Your task to perform on an android device: Search for duracell triple a on amazon.com, select the first entry, and add it to the cart. Image 0: 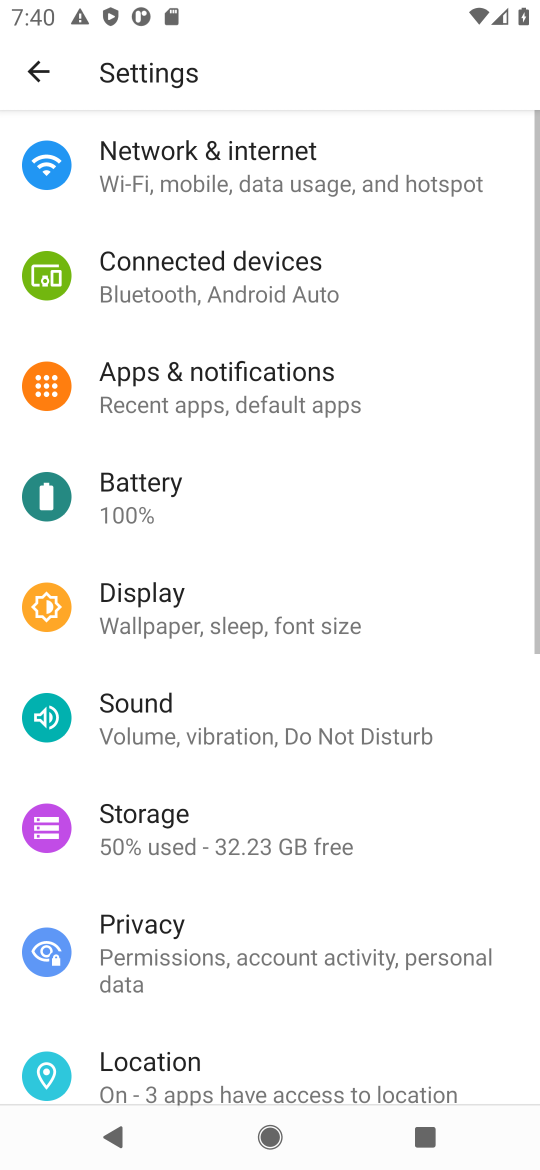
Step 0: press home button
Your task to perform on an android device: Search for duracell triple a on amazon.com, select the first entry, and add it to the cart. Image 1: 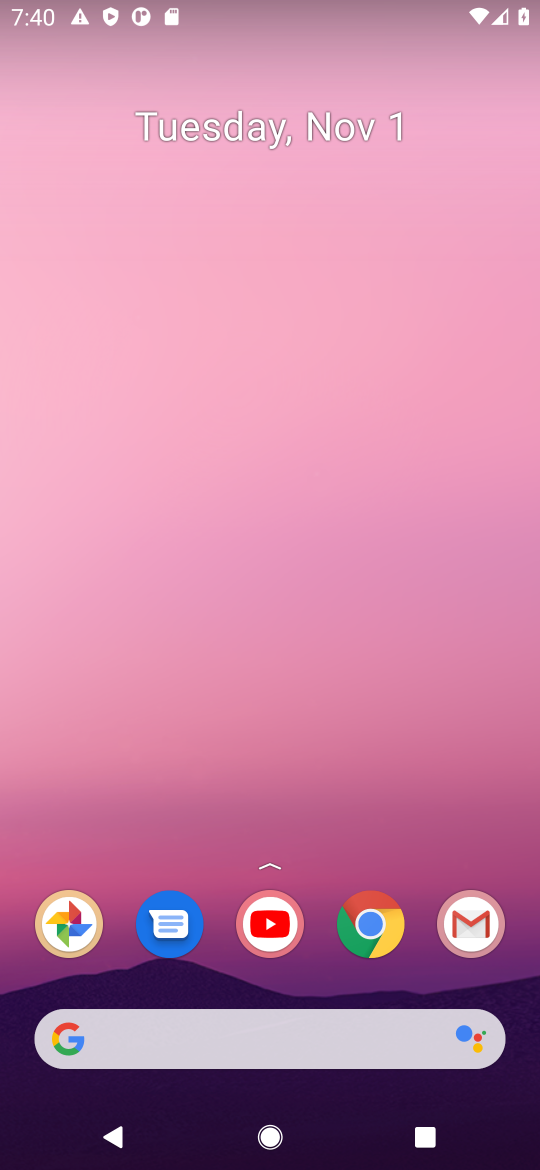
Step 1: click (102, 1040)
Your task to perform on an android device: Search for duracell triple a on amazon.com, select the first entry, and add it to the cart. Image 2: 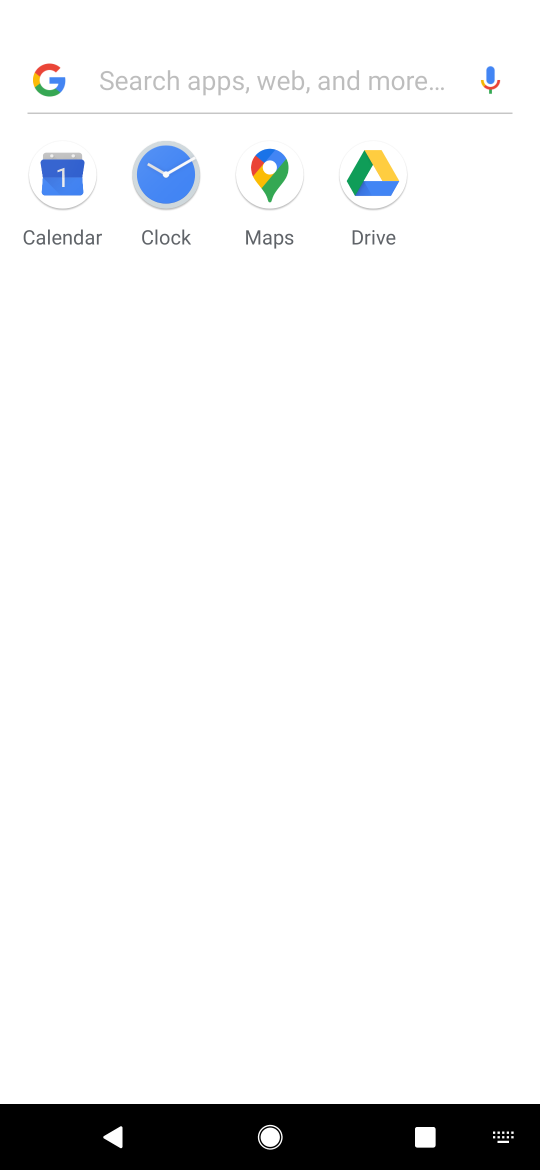
Step 2: press enter
Your task to perform on an android device: Search for duracell triple a on amazon.com, select the first entry, and add it to the cart. Image 3: 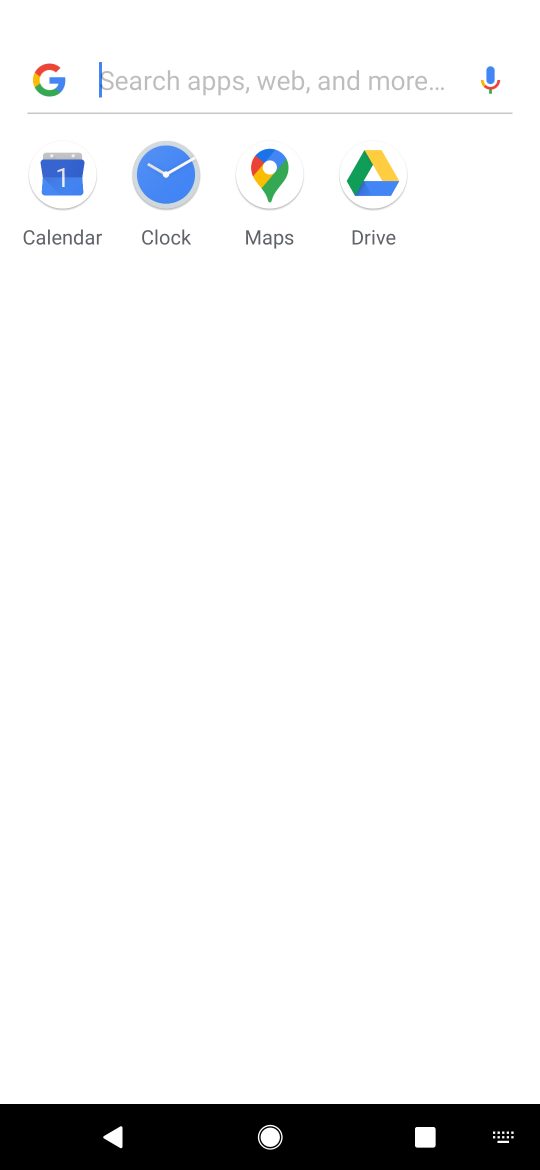
Step 3: type " amazon.com"
Your task to perform on an android device: Search for duracell triple a on amazon.com, select the first entry, and add it to the cart. Image 4: 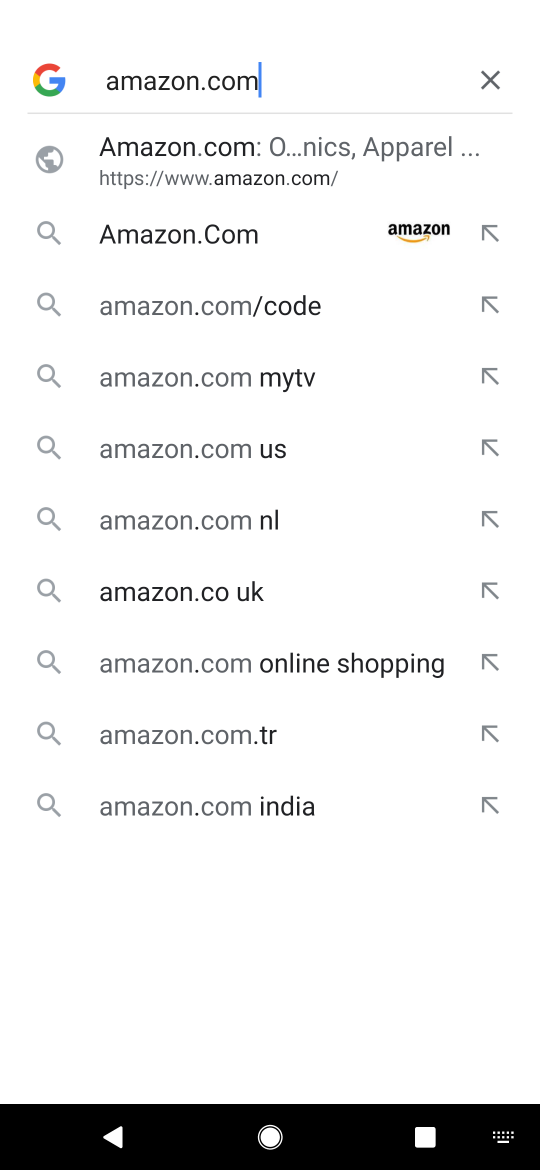
Step 4: press enter
Your task to perform on an android device: Search for duracell triple a on amazon.com, select the first entry, and add it to the cart. Image 5: 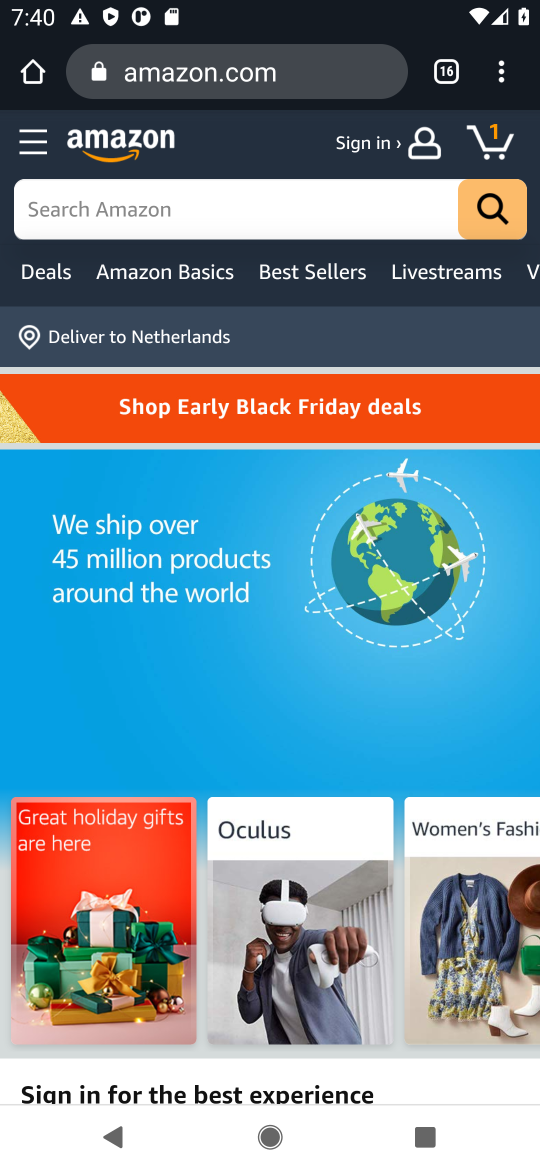
Step 5: click (81, 204)
Your task to perform on an android device: Search for duracell triple a on amazon.com, select the first entry, and add it to the cart. Image 6: 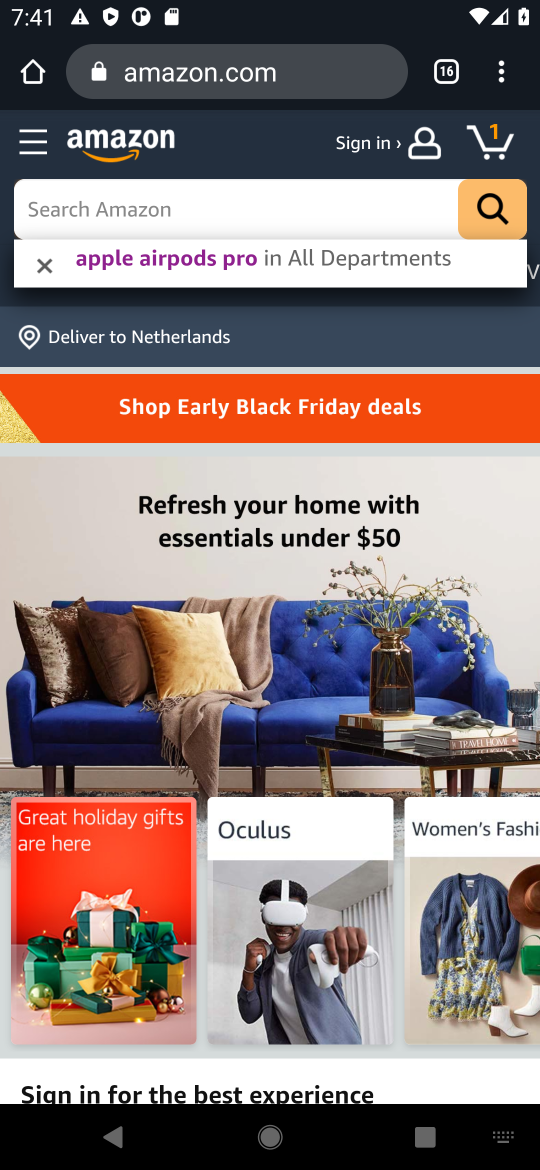
Step 6: type "duracell triple a"
Your task to perform on an android device: Search for duracell triple a on amazon.com, select the first entry, and add it to the cart. Image 7: 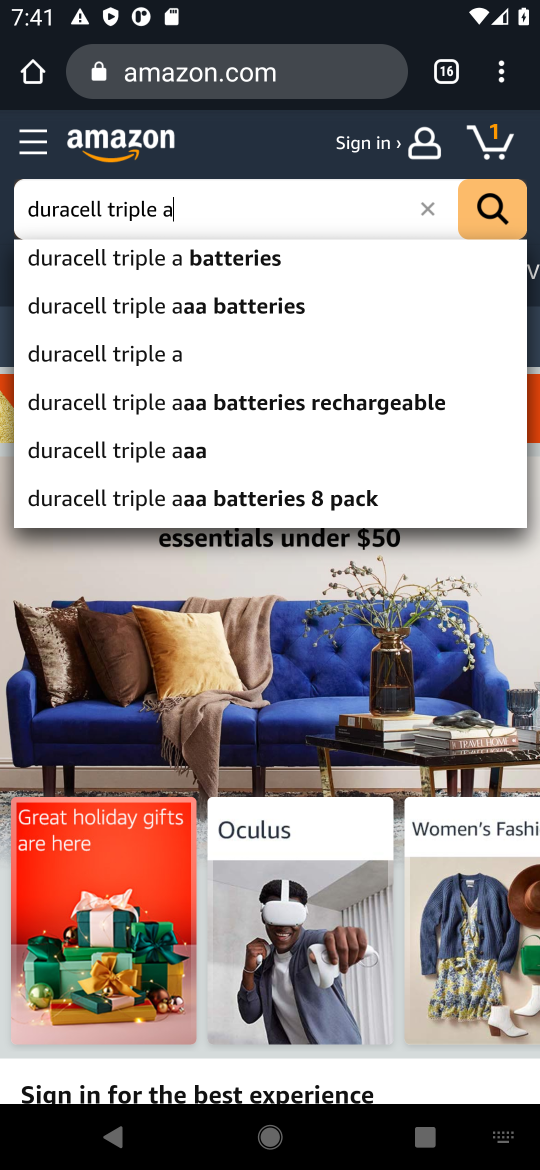
Step 7: click (496, 206)
Your task to perform on an android device: Search for duracell triple a on amazon.com, select the first entry, and add it to the cart. Image 8: 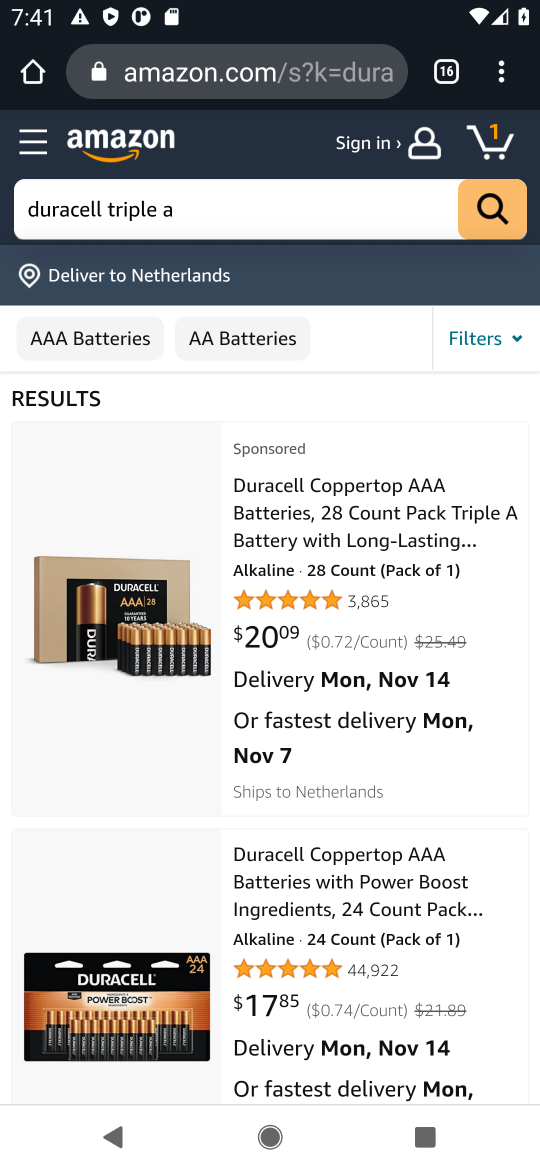
Step 8: click (343, 511)
Your task to perform on an android device: Search for duracell triple a on amazon.com, select the first entry, and add it to the cart. Image 9: 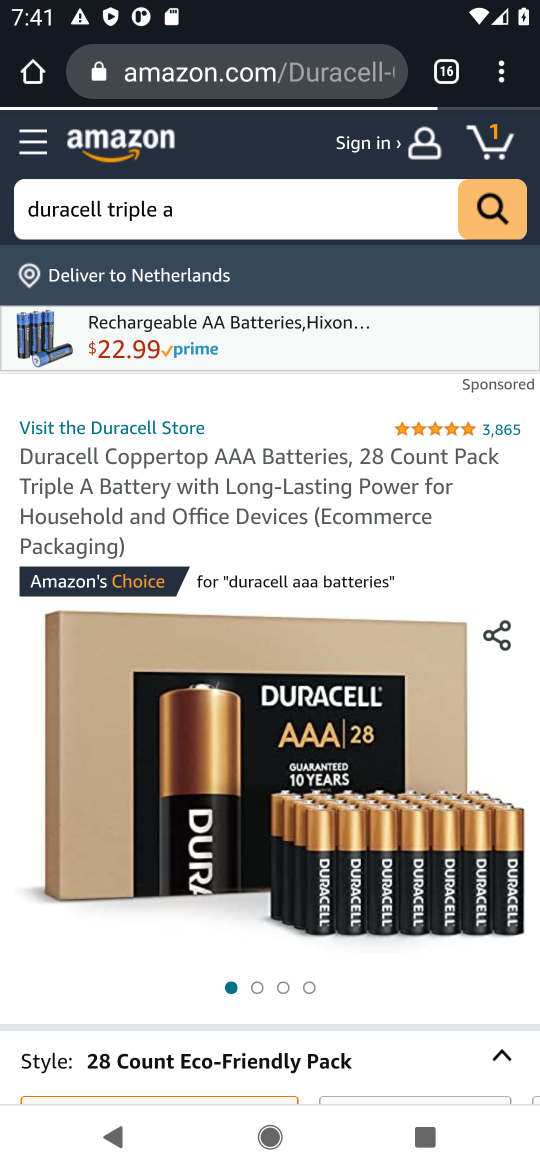
Step 9: drag from (360, 893) to (382, 364)
Your task to perform on an android device: Search for duracell triple a on amazon.com, select the first entry, and add it to the cart. Image 10: 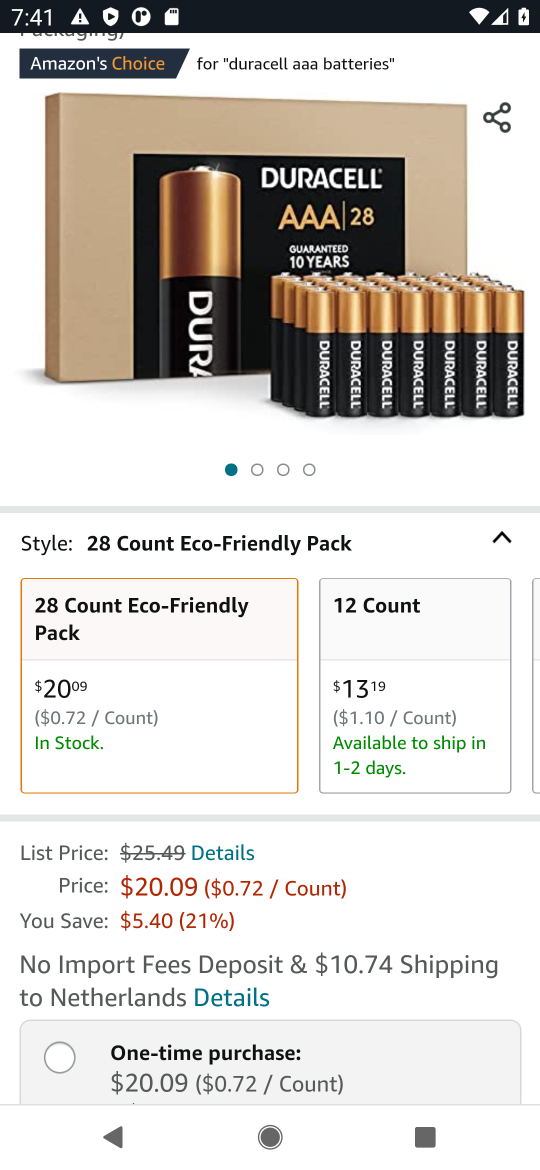
Step 10: drag from (284, 892) to (308, 275)
Your task to perform on an android device: Search for duracell triple a on amazon.com, select the first entry, and add it to the cart. Image 11: 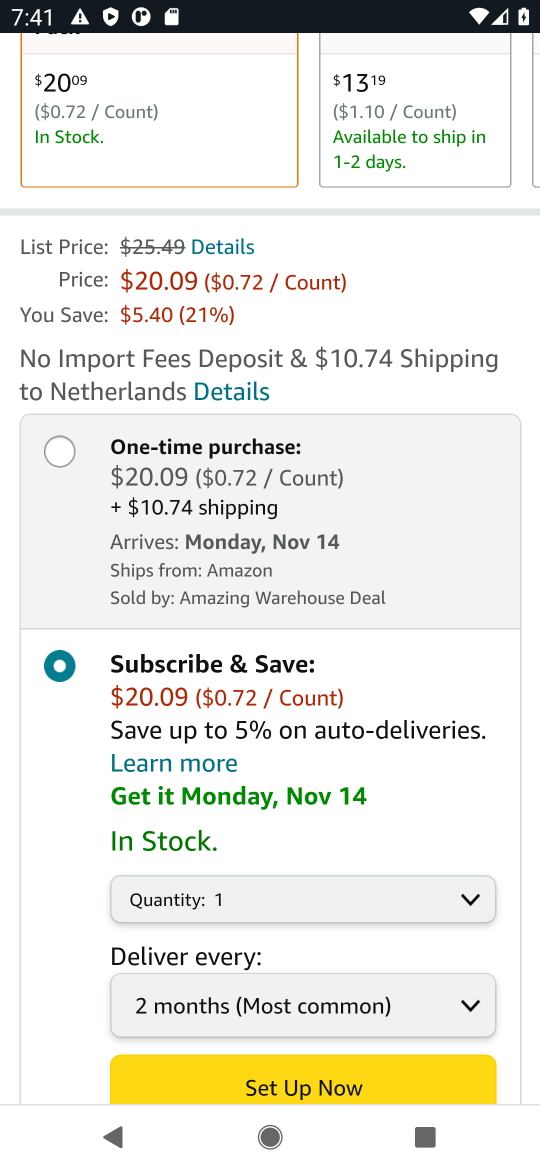
Step 11: drag from (209, 965) to (300, 355)
Your task to perform on an android device: Search for duracell triple a on amazon.com, select the first entry, and add it to the cart. Image 12: 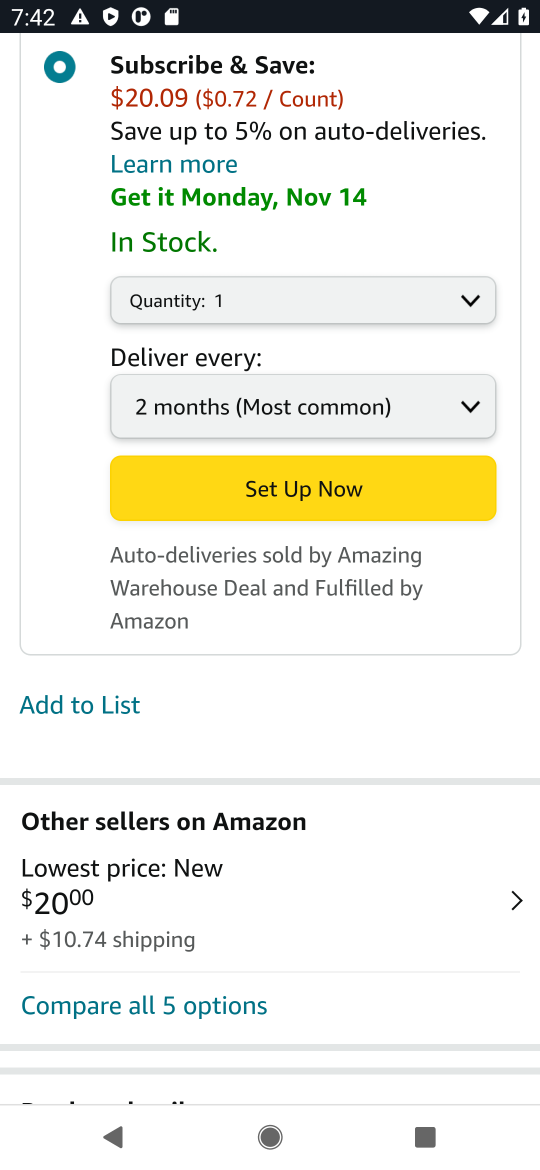
Step 12: click (317, 488)
Your task to perform on an android device: Search for duracell triple a on amazon.com, select the first entry, and add it to the cart. Image 13: 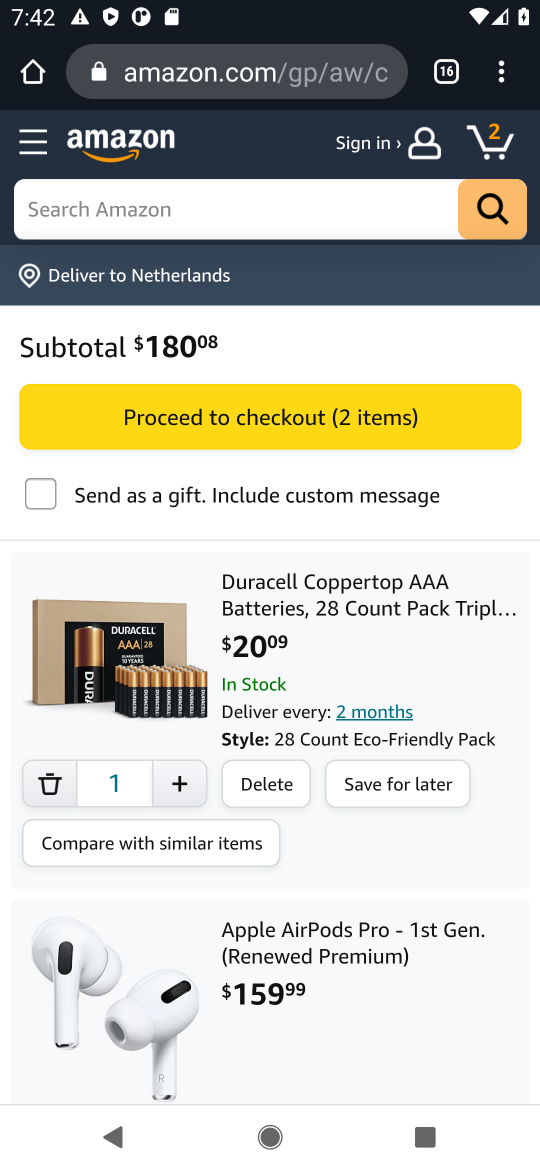
Step 13: task complete